Your task to perform on an android device: toggle sleep mode Image 0: 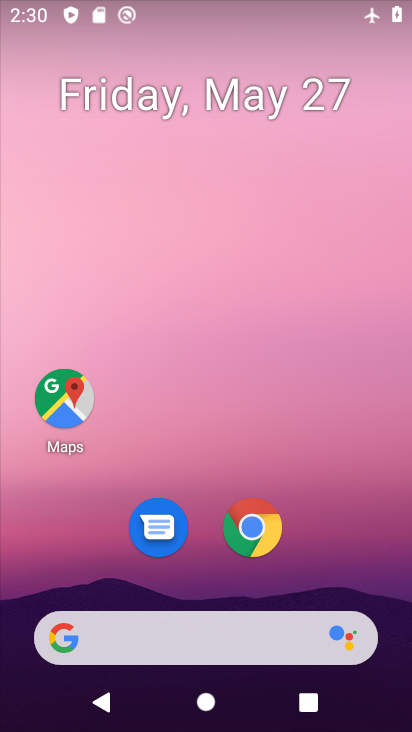
Step 0: drag from (268, 707) to (255, 4)
Your task to perform on an android device: toggle sleep mode Image 1: 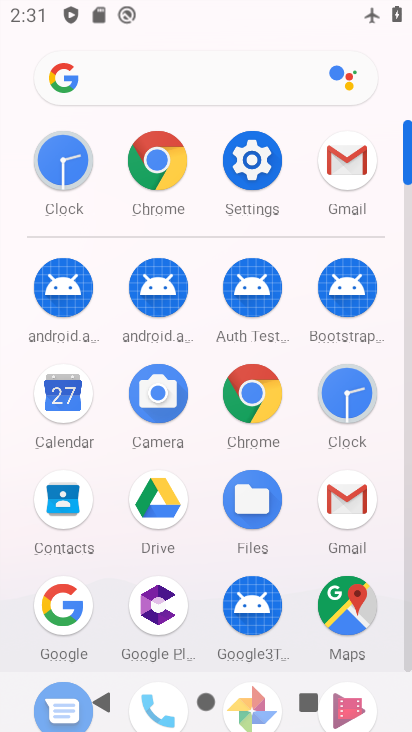
Step 1: click (261, 164)
Your task to perform on an android device: toggle sleep mode Image 2: 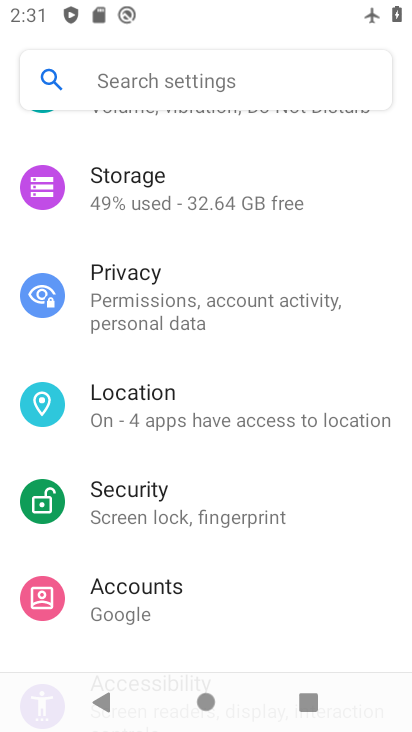
Step 2: drag from (330, 516) to (253, 42)
Your task to perform on an android device: toggle sleep mode Image 3: 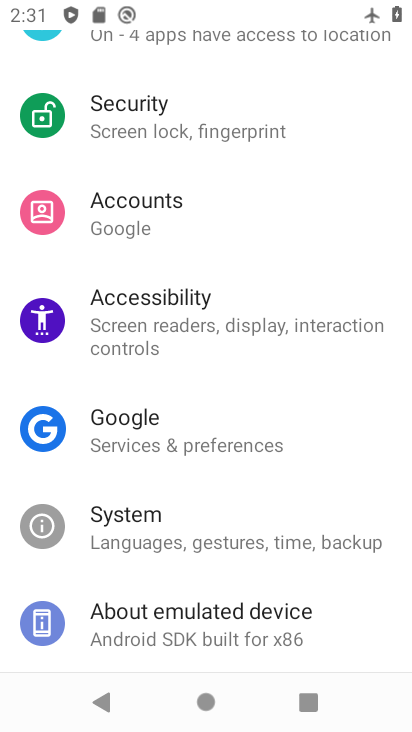
Step 3: drag from (332, 191) to (327, 586)
Your task to perform on an android device: toggle sleep mode Image 4: 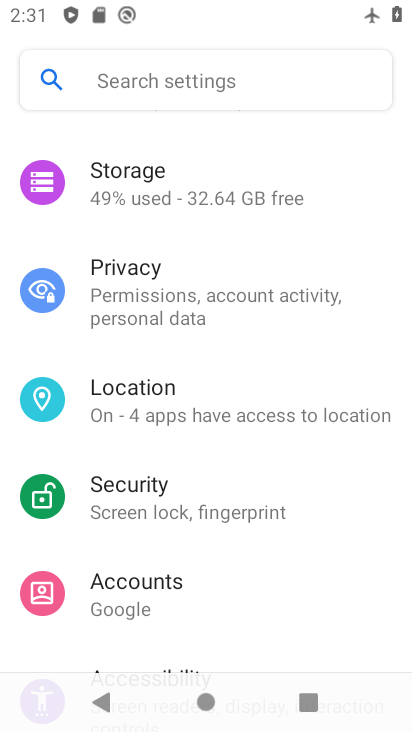
Step 4: drag from (267, 159) to (239, 535)
Your task to perform on an android device: toggle sleep mode Image 5: 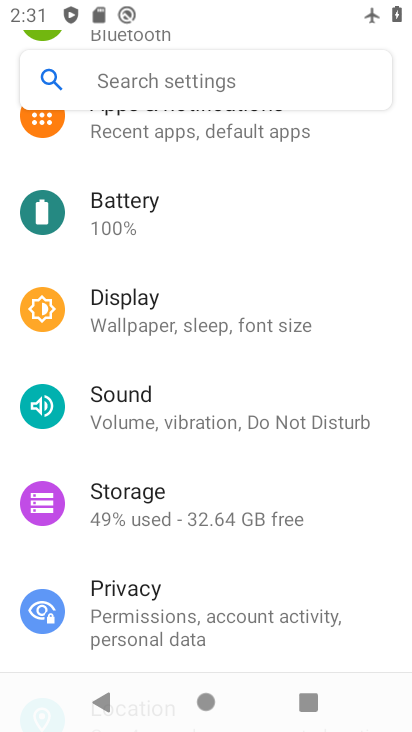
Step 5: click (267, 297)
Your task to perform on an android device: toggle sleep mode Image 6: 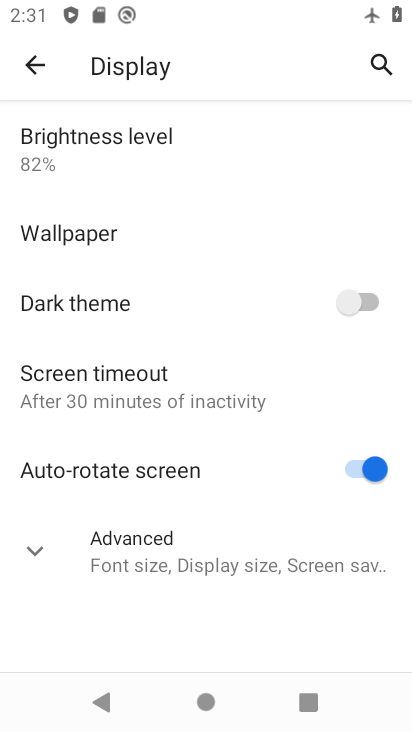
Step 6: task complete